Your task to perform on an android device: set the timer Image 0: 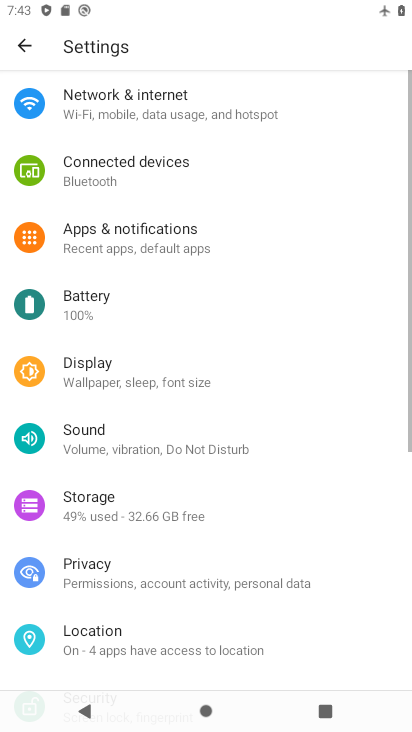
Step 0: press home button
Your task to perform on an android device: set the timer Image 1: 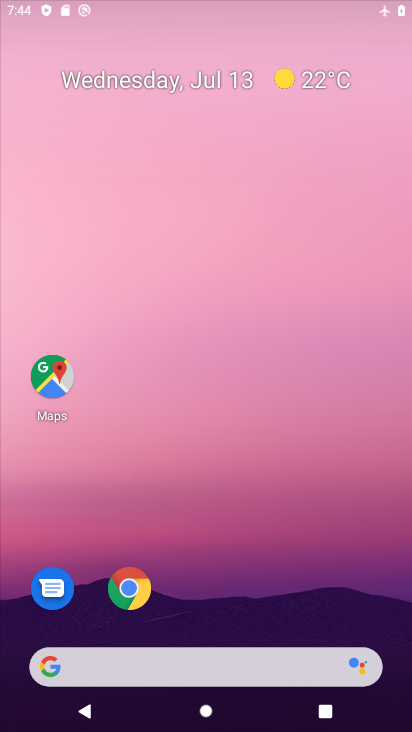
Step 1: drag from (163, 618) to (209, 318)
Your task to perform on an android device: set the timer Image 2: 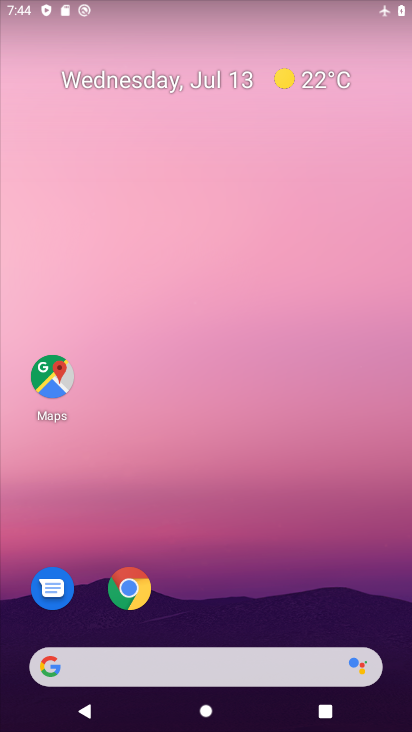
Step 2: drag from (239, 474) to (224, 96)
Your task to perform on an android device: set the timer Image 3: 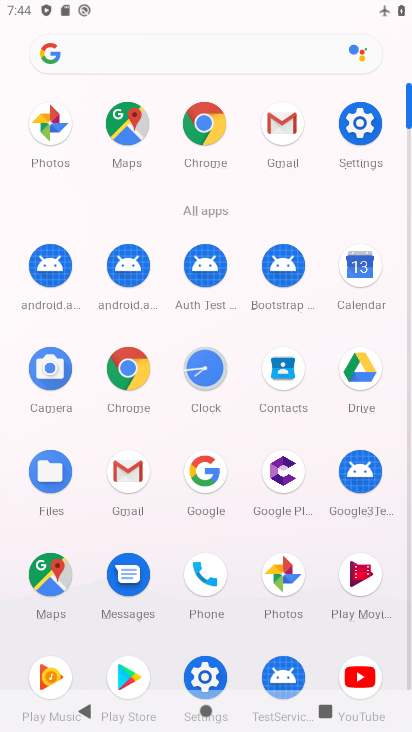
Step 3: click (199, 363)
Your task to perform on an android device: set the timer Image 4: 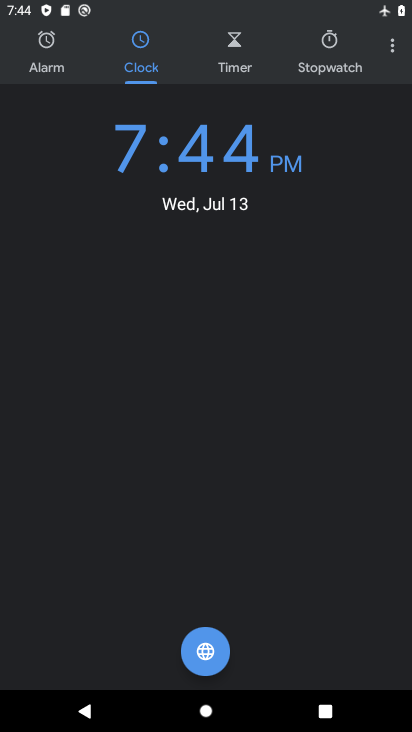
Step 4: click (220, 40)
Your task to perform on an android device: set the timer Image 5: 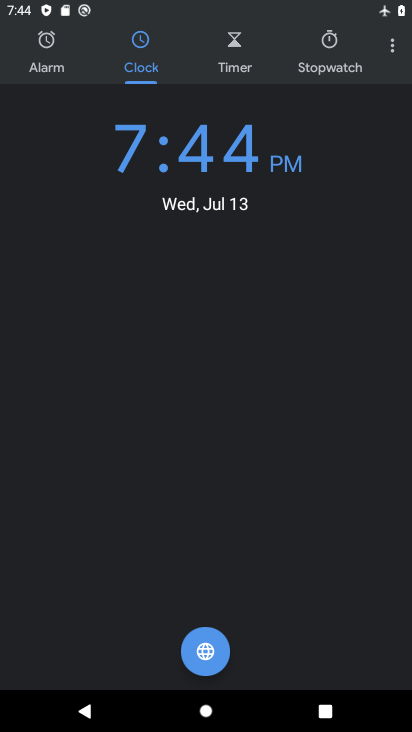
Step 5: click (234, 38)
Your task to perform on an android device: set the timer Image 6: 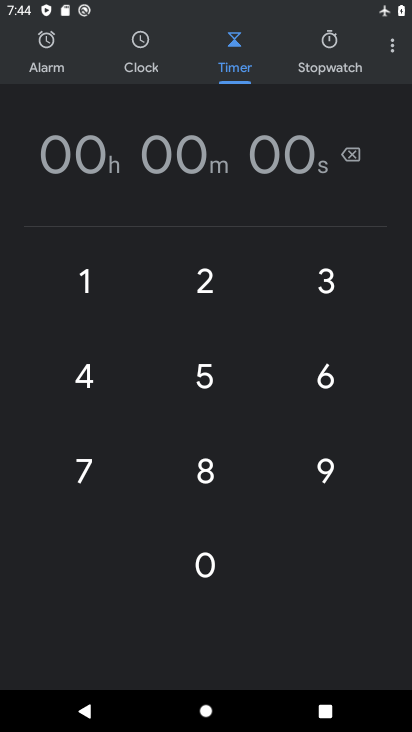
Step 6: click (136, 127)
Your task to perform on an android device: set the timer Image 7: 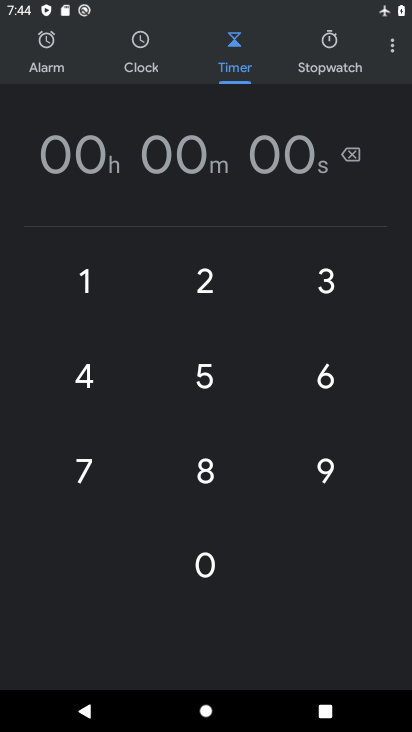
Step 7: type "  7787877878787878"
Your task to perform on an android device: set the timer Image 8: 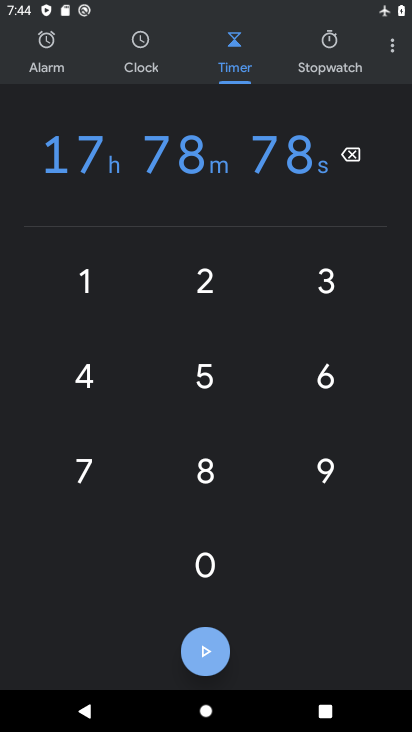
Step 8: click (211, 634)
Your task to perform on an android device: set the timer Image 9: 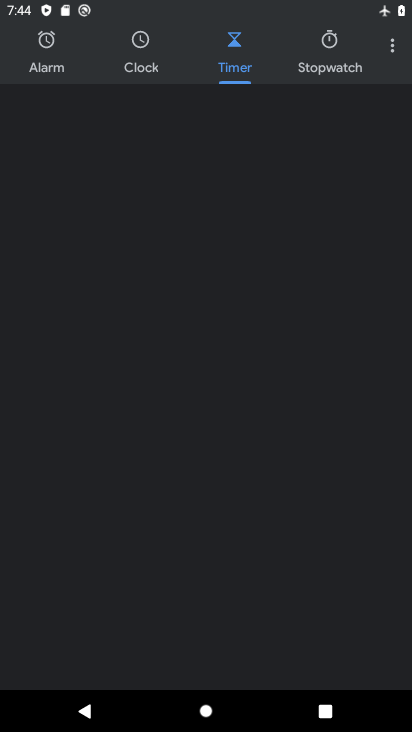
Step 9: click (212, 636)
Your task to perform on an android device: set the timer Image 10: 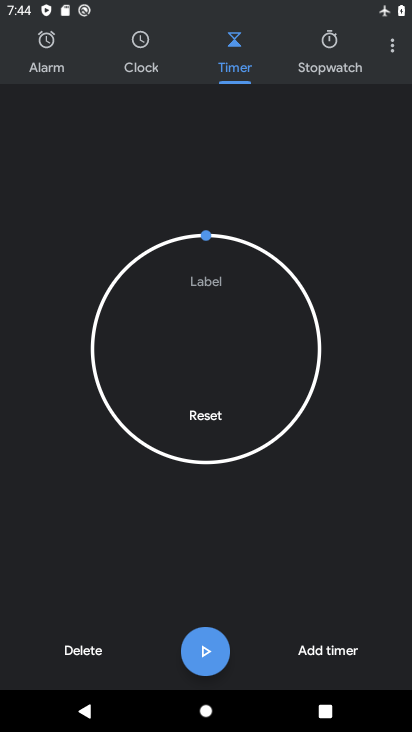
Step 10: task complete